Your task to perform on an android device: install app "Microsoft Excel" Image 0: 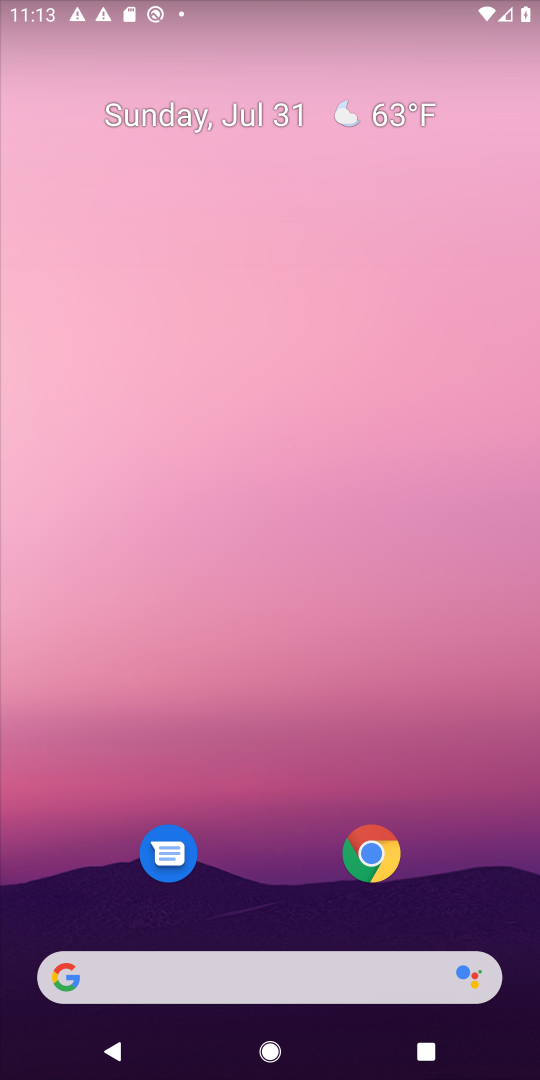
Step 0: drag from (263, 614) to (243, 71)
Your task to perform on an android device: install app "Microsoft Excel" Image 1: 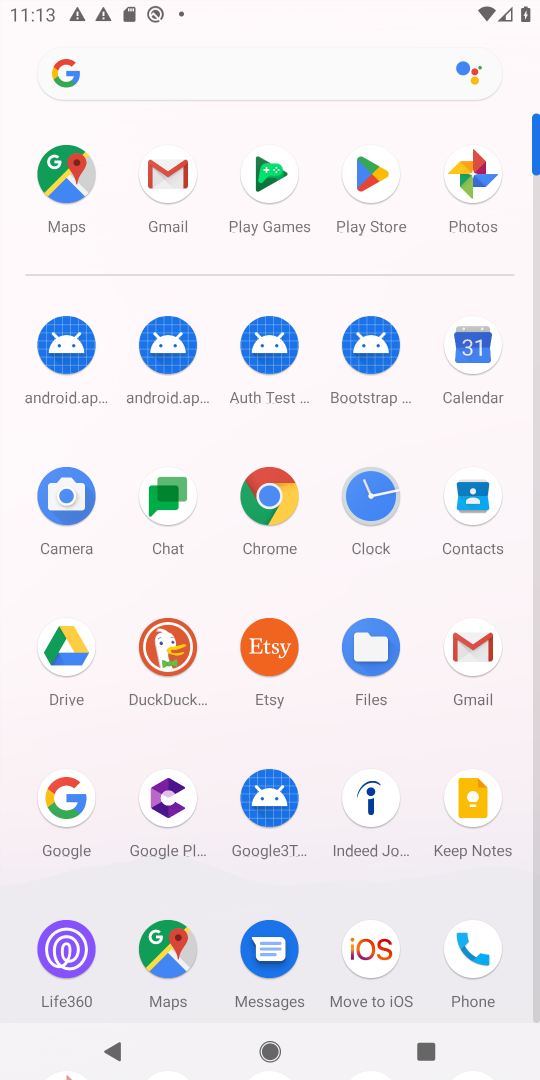
Step 1: click (373, 175)
Your task to perform on an android device: install app "Microsoft Excel" Image 2: 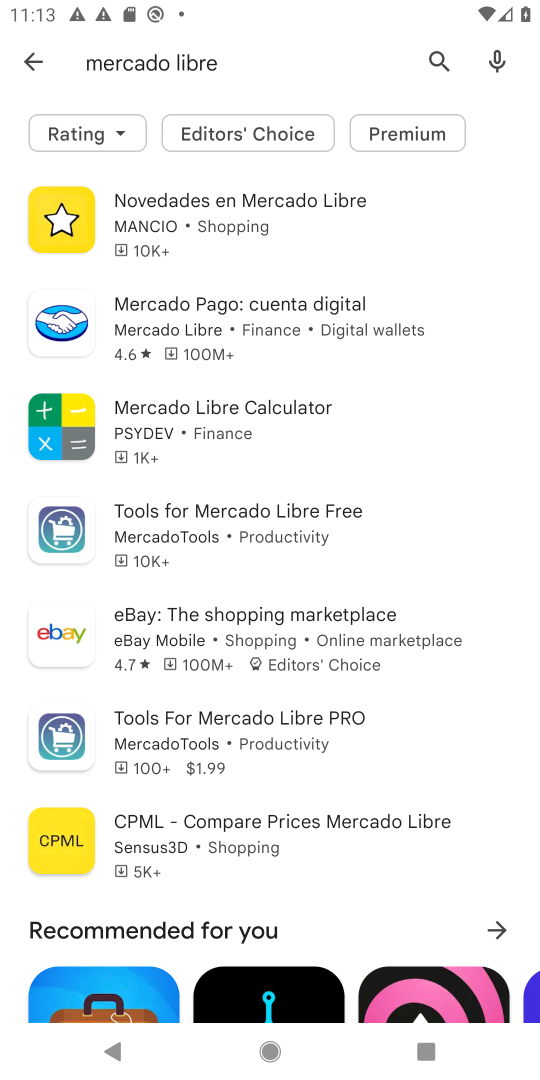
Step 2: click (438, 52)
Your task to perform on an android device: install app "Microsoft Excel" Image 3: 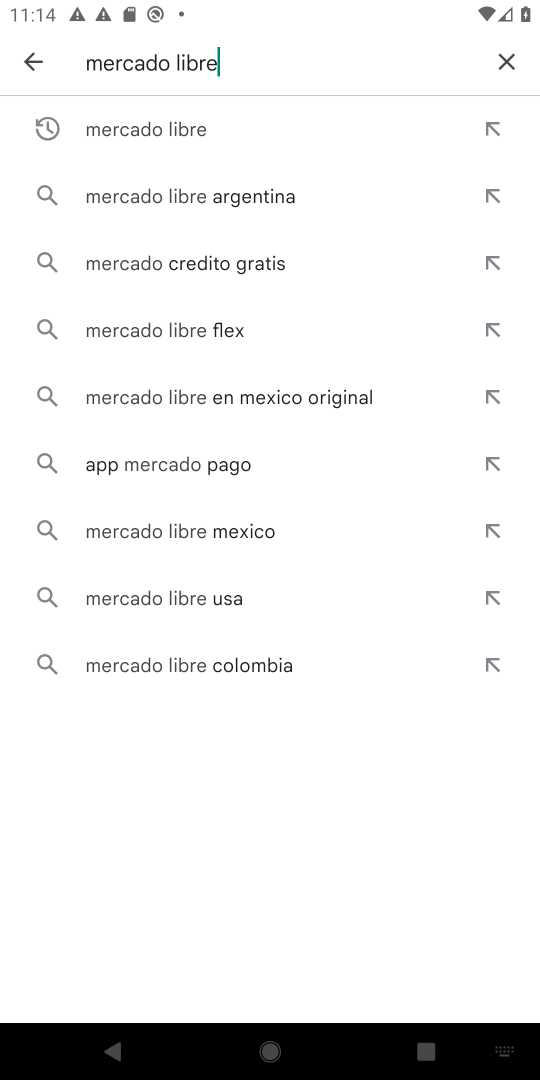
Step 3: click (506, 58)
Your task to perform on an android device: install app "Microsoft Excel" Image 4: 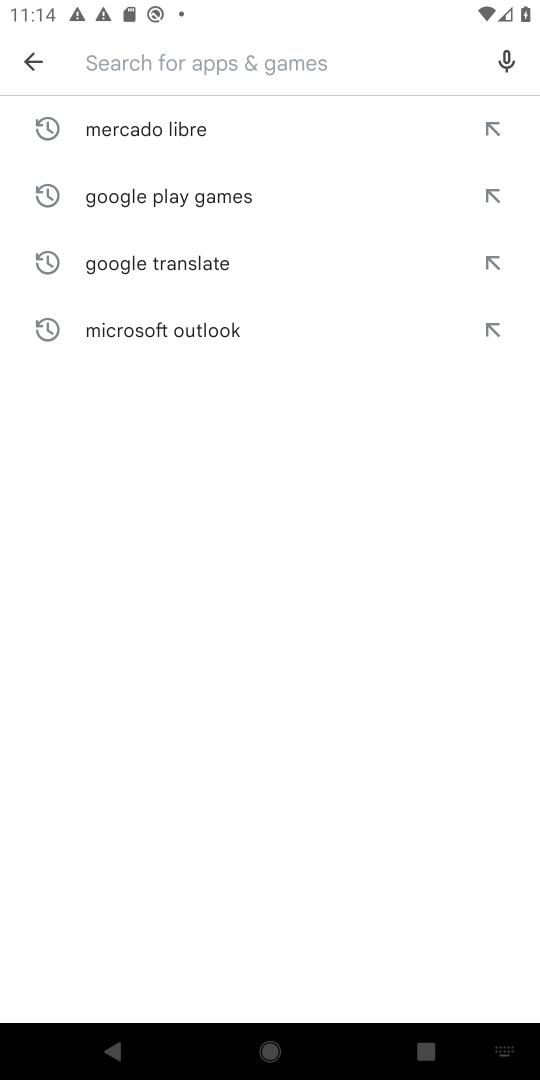
Step 4: type "Microsoft Excel"
Your task to perform on an android device: install app "Microsoft Excel" Image 5: 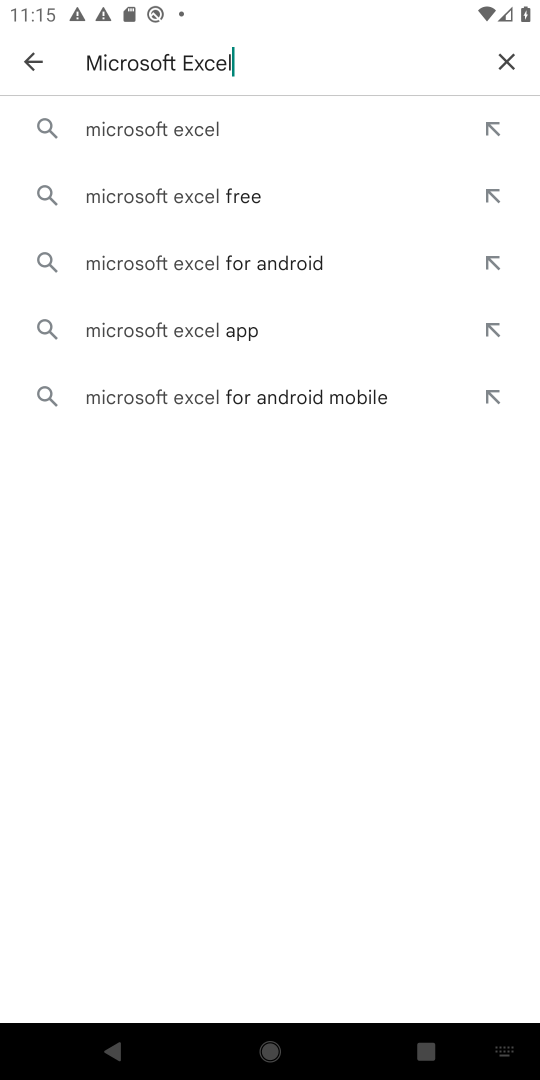
Step 5: click (137, 131)
Your task to perform on an android device: install app "Microsoft Excel" Image 6: 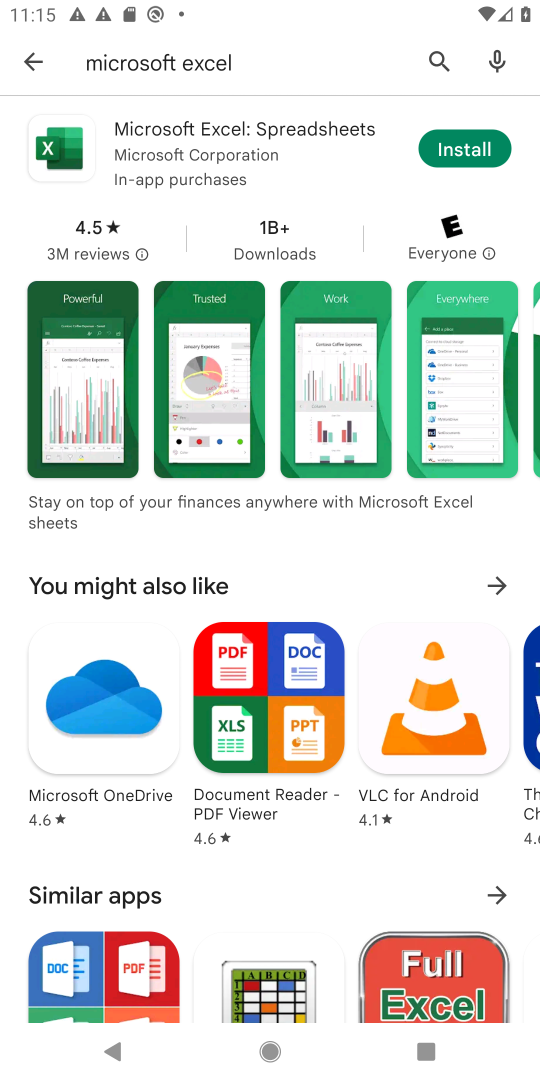
Step 6: click (470, 148)
Your task to perform on an android device: install app "Microsoft Excel" Image 7: 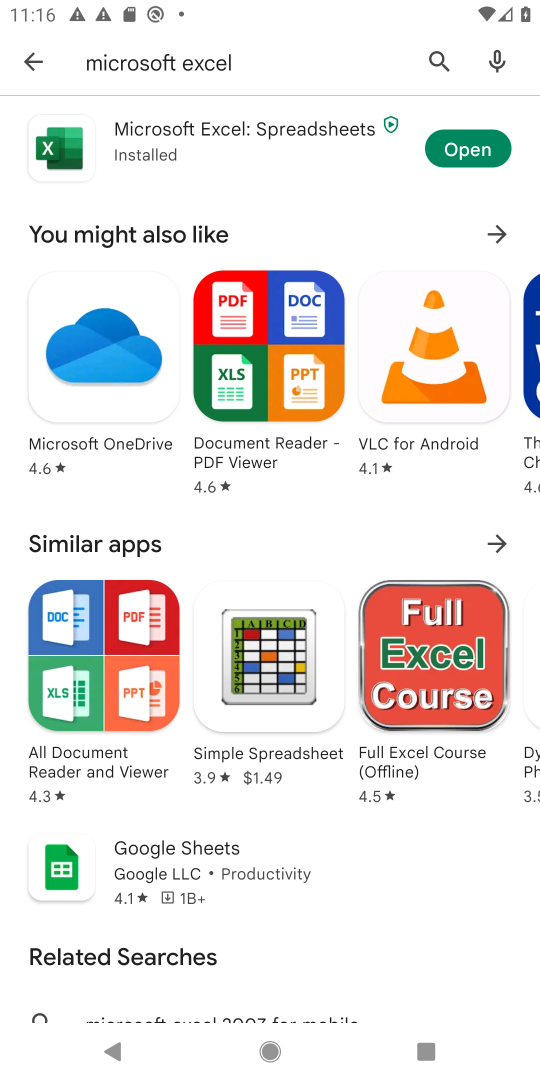
Step 7: task complete